Your task to perform on an android device: When is my next appointment? Image 0: 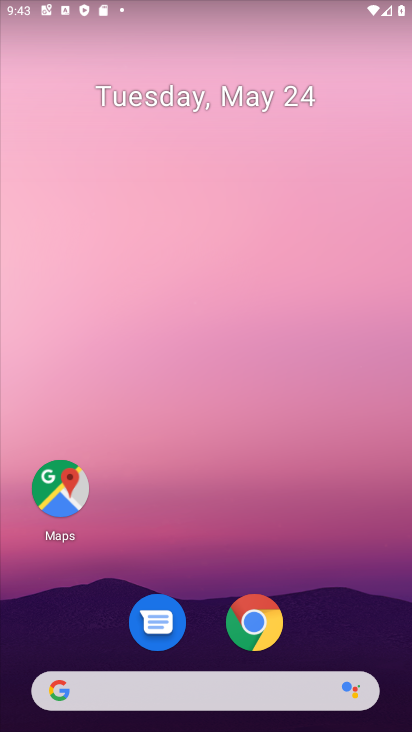
Step 0: press home button
Your task to perform on an android device: When is my next appointment? Image 1: 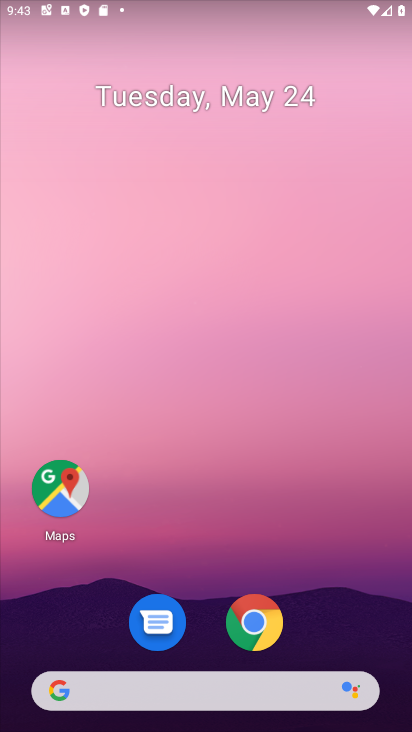
Step 1: drag from (233, 694) to (328, 44)
Your task to perform on an android device: When is my next appointment? Image 2: 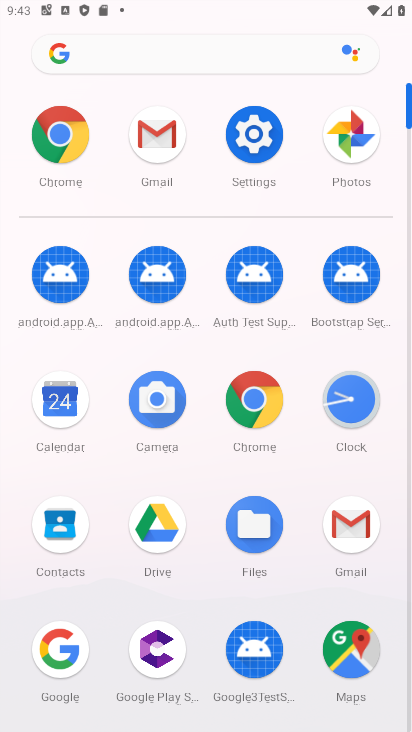
Step 2: click (63, 401)
Your task to perform on an android device: When is my next appointment? Image 3: 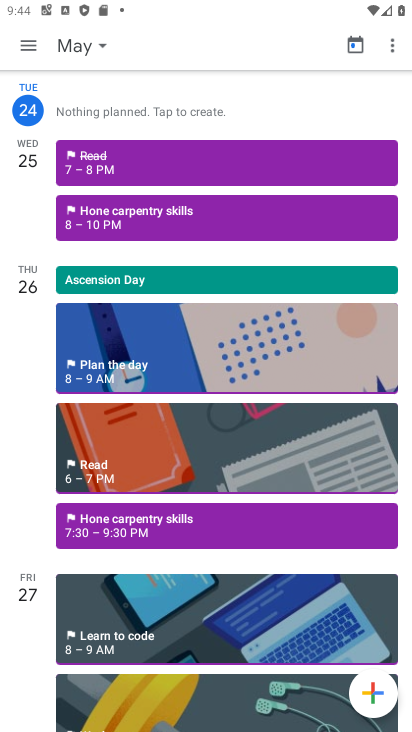
Step 3: click (30, 39)
Your task to perform on an android device: When is my next appointment? Image 4: 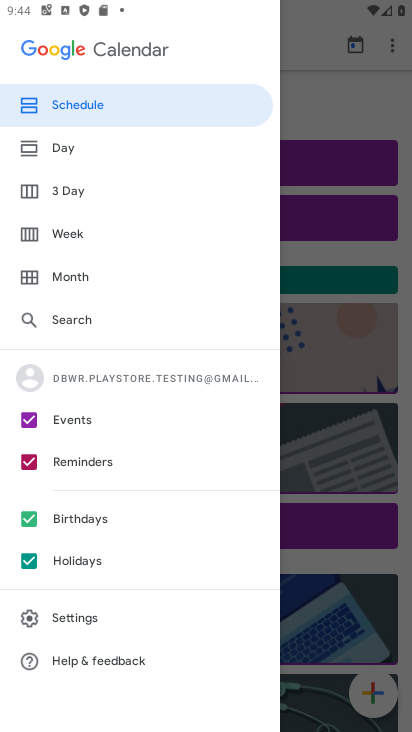
Step 4: click (118, 111)
Your task to perform on an android device: When is my next appointment? Image 5: 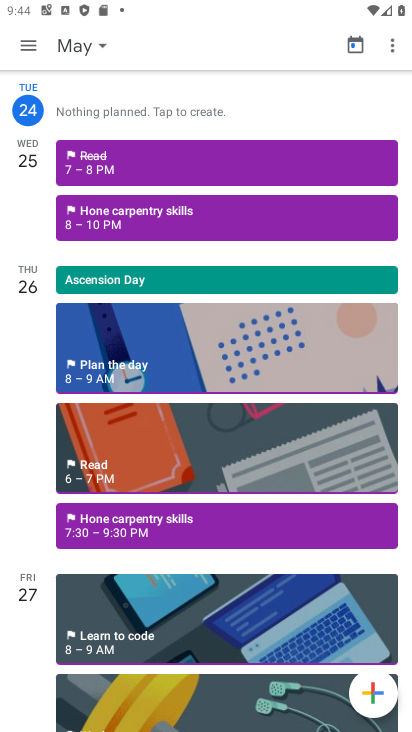
Step 5: task complete